Your task to perform on an android device: Go to battery settings Image 0: 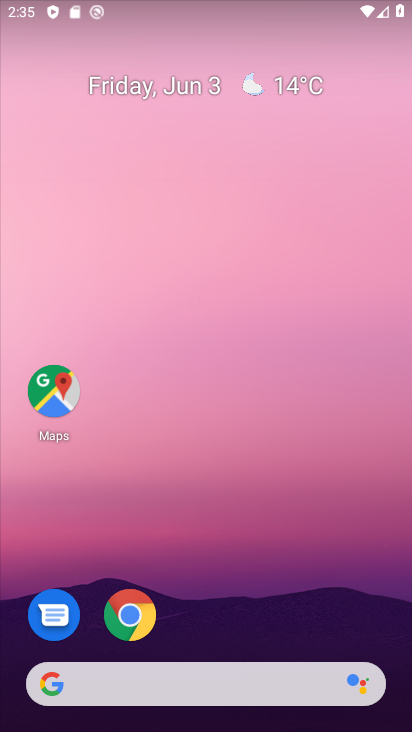
Step 0: drag from (273, 617) to (273, 69)
Your task to perform on an android device: Go to battery settings Image 1: 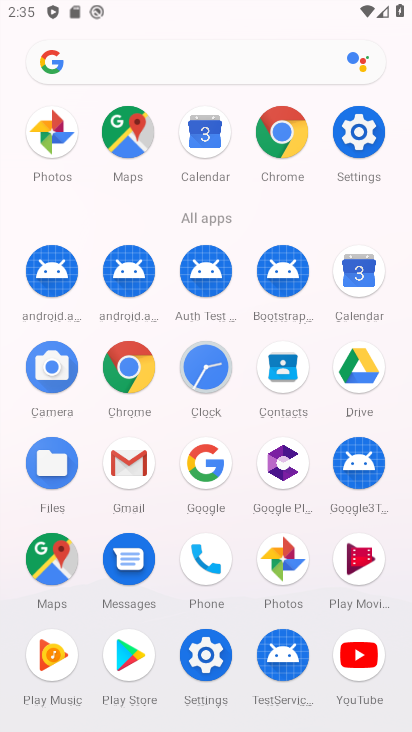
Step 1: click (355, 150)
Your task to perform on an android device: Go to battery settings Image 2: 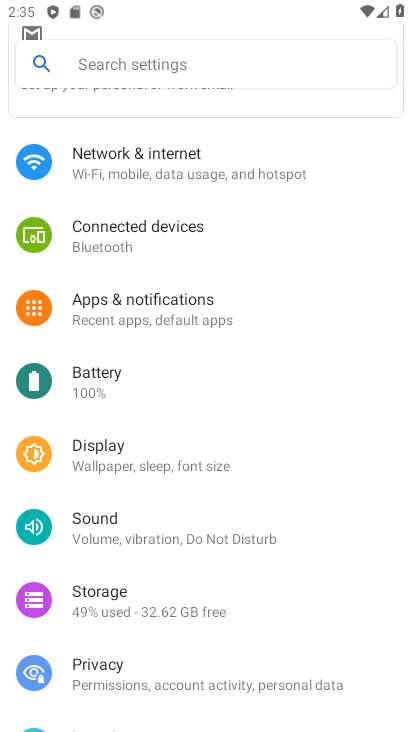
Step 2: click (90, 375)
Your task to perform on an android device: Go to battery settings Image 3: 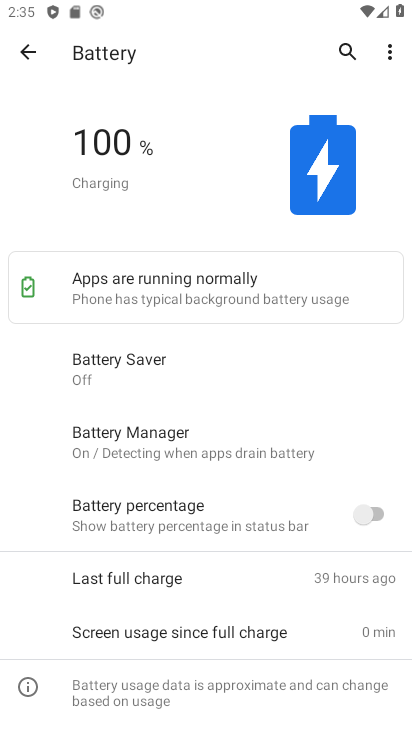
Step 3: task complete